Your task to perform on an android device: turn smart compose on in the gmail app Image 0: 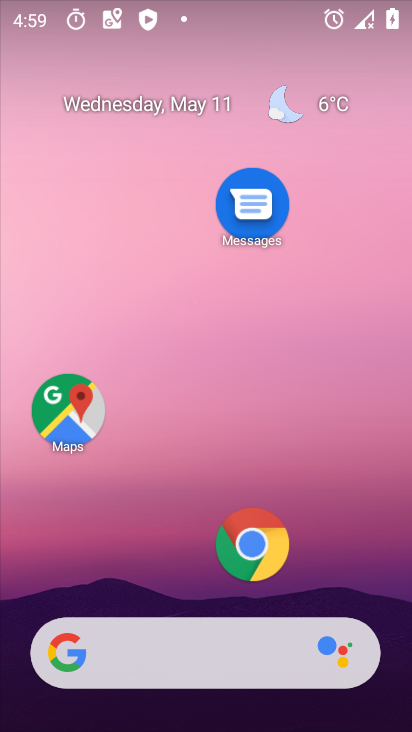
Step 0: drag from (160, 503) to (242, 3)
Your task to perform on an android device: turn smart compose on in the gmail app Image 1: 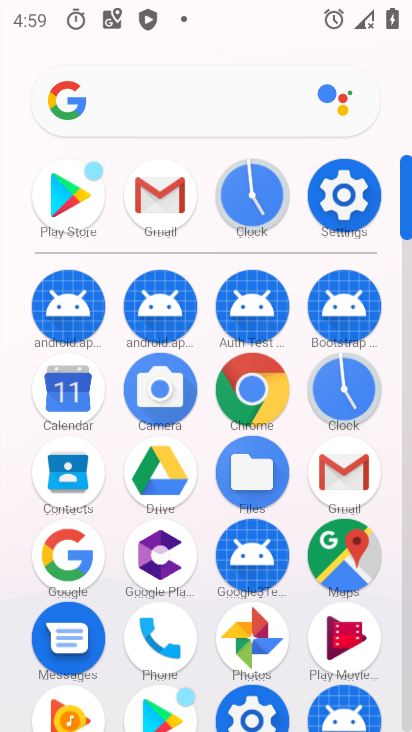
Step 1: click (160, 195)
Your task to perform on an android device: turn smart compose on in the gmail app Image 2: 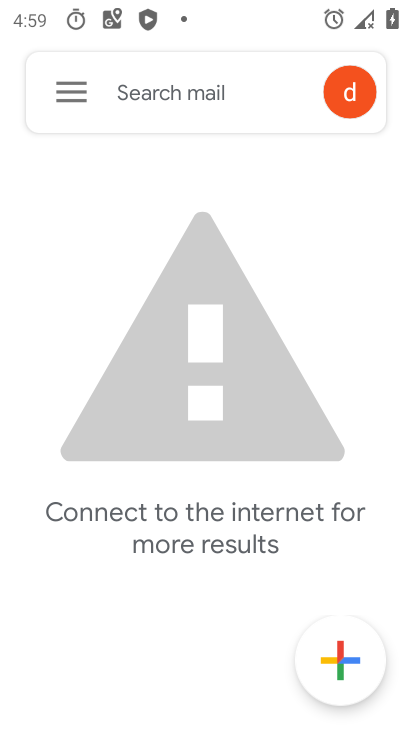
Step 2: click (72, 86)
Your task to perform on an android device: turn smart compose on in the gmail app Image 3: 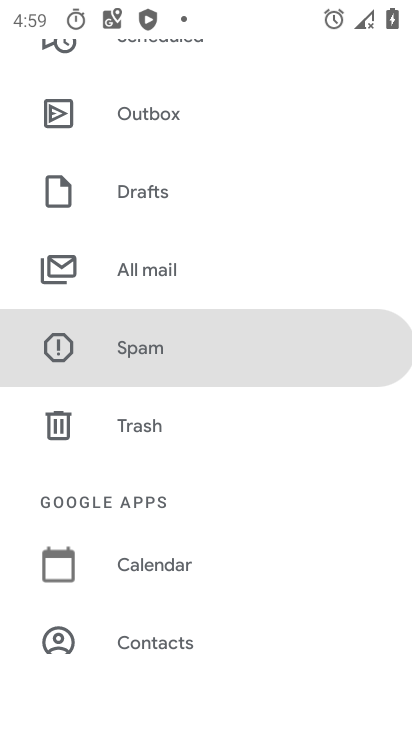
Step 3: drag from (143, 602) to (307, 21)
Your task to perform on an android device: turn smart compose on in the gmail app Image 4: 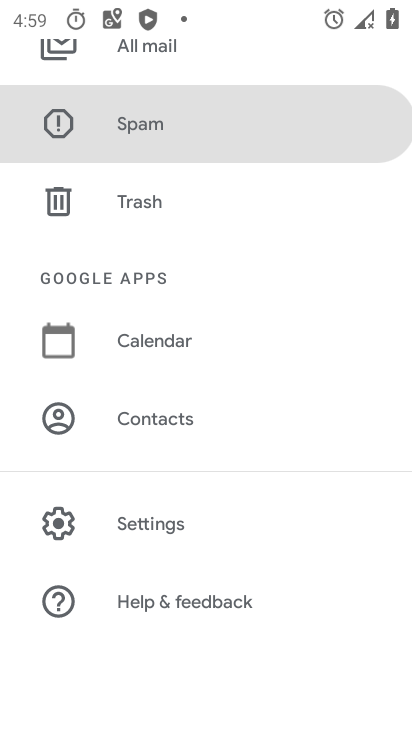
Step 4: click (135, 520)
Your task to perform on an android device: turn smart compose on in the gmail app Image 5: 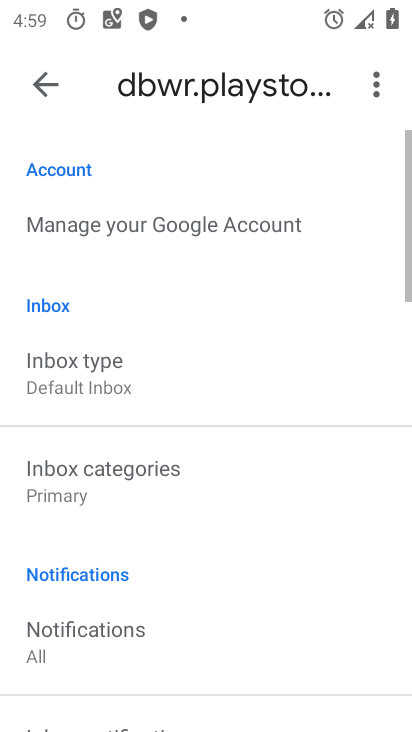
Step 5: task complete